Your task to perform on an android device: turn off sleep mode Image 0: 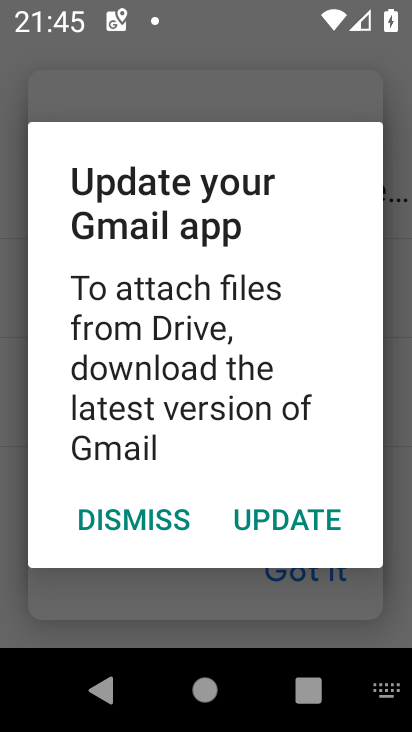
Step 0: press home button
Your task to perform on an android device: turn off sleep mode Image 1: 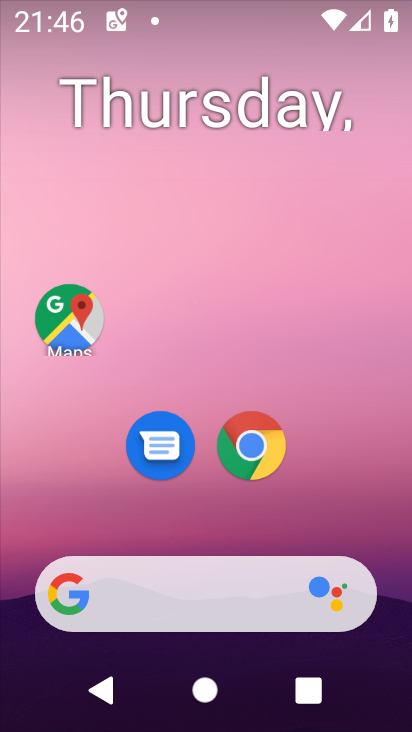
Step 1: drag from (58, 598) to (315, 142)
Your task to perform on an android device: turn off sleep mode Image 2: 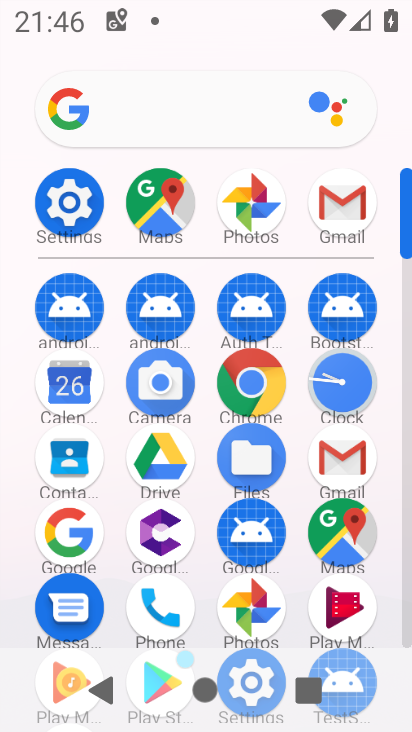
Step 2: click (65, 207)
Your task to perform on an android device: turn off sleep mode Image 3: 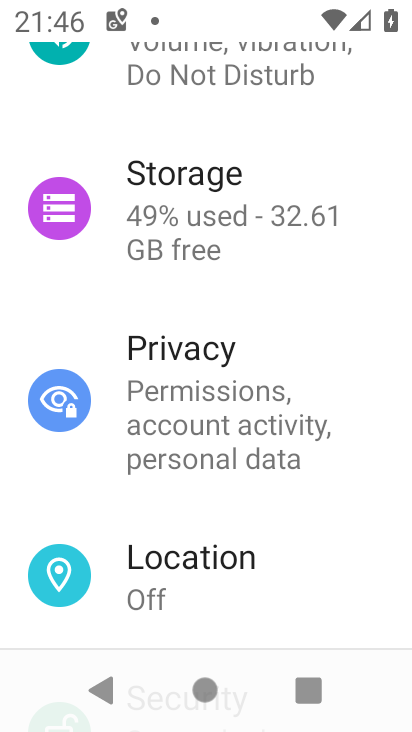
Step 3: drag from (227, 203) to (175, 556)
Your task to perform on an android device: turn off sleep mode Image 4: 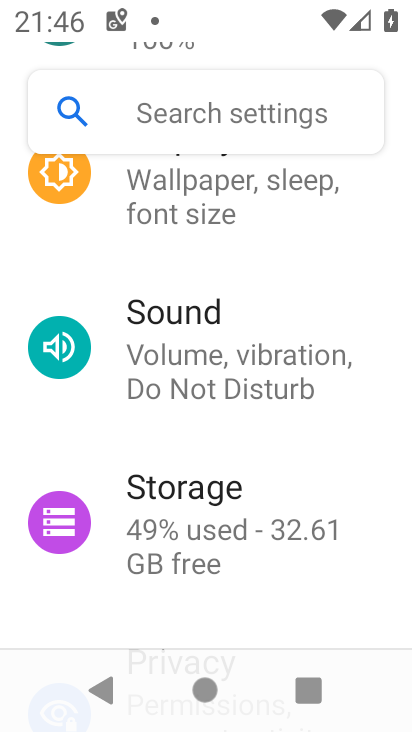
Step 4: click (221, 224)
Your task to perform on an android device: turn off sleep mode Image 5: 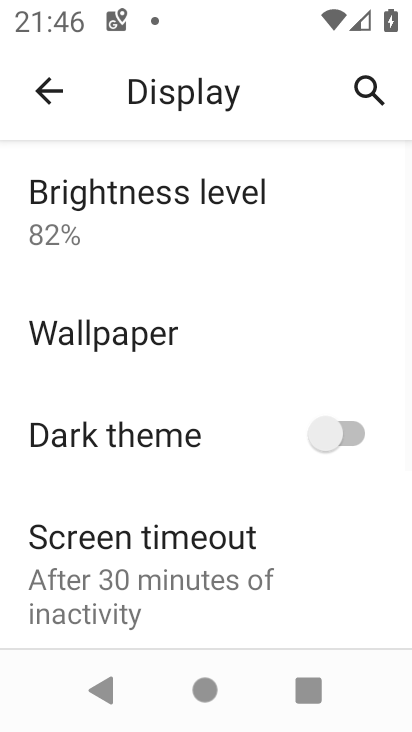
Step 5: task complete